Your task to perform on an android device: toggle sleep mode Image 0: 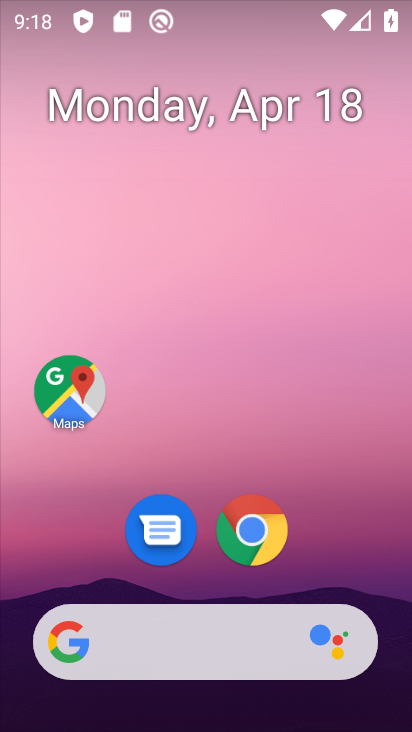
Step 0: drag from (360, 583) to (370, 19)
Your task to perform on an android device: toggle sleep mode Image 1: 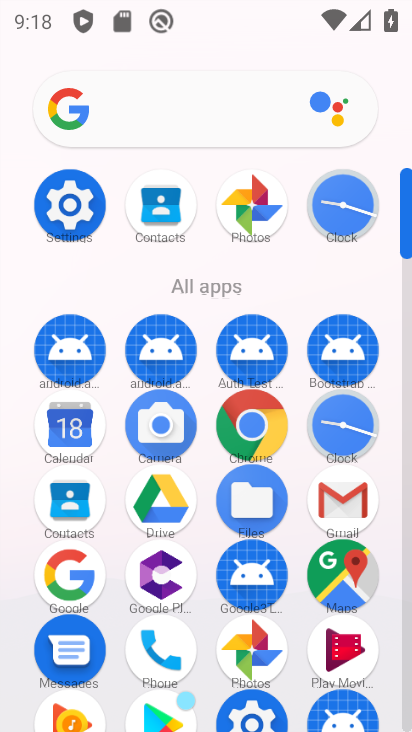
Step 1: click (77, 203)
Your task to perform on an android device: toggle sleep mode Image 2: 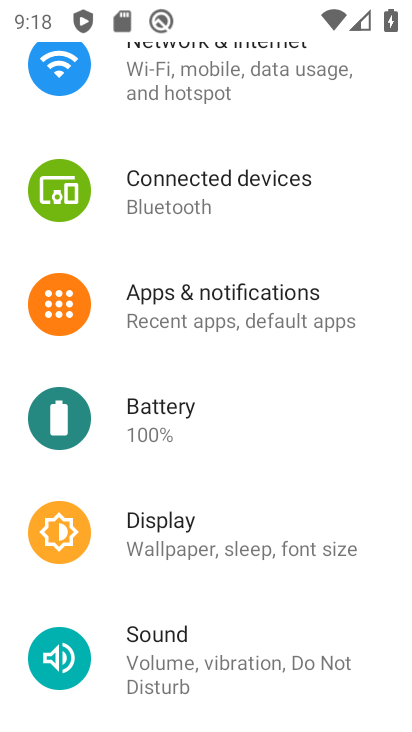
Step 2: click (167, 543)
Your task to perform on an android device: toggle sleep mode Image 3: 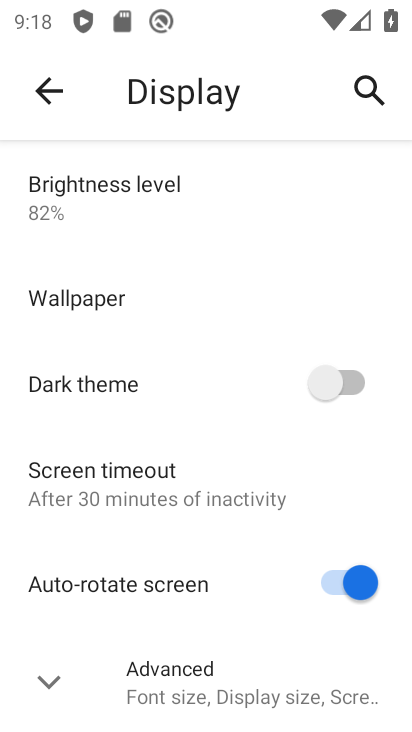
Step 3: click (41, 690)
Your task to perform on an android device: toggle sleep mode Image 4: 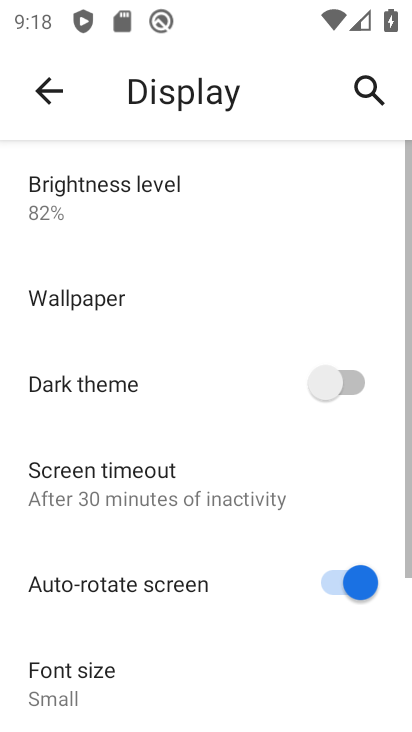
Step 4: task complete